Your task to perform on an android device: search for starred emails in the gmail app Image 0: 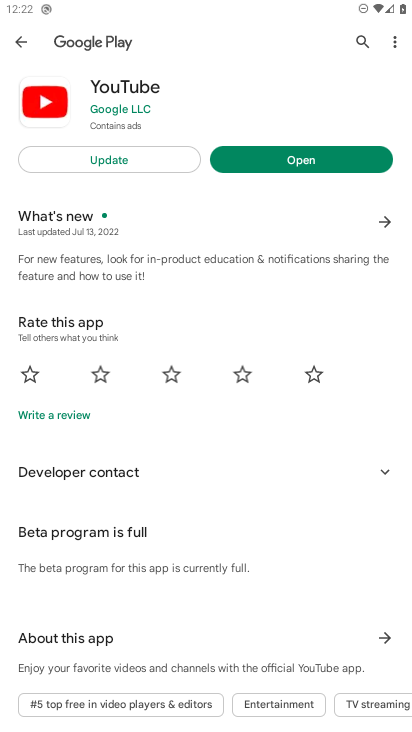
Step 0: press home button
Your task to perform on an android device: search for starred emails in the gmail app Image 1: 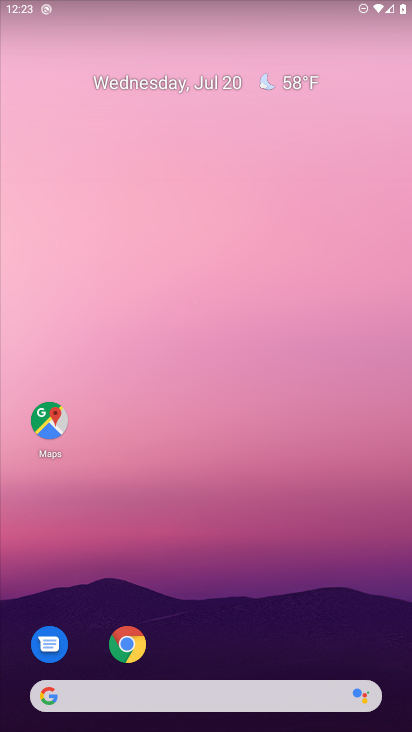
Step 1: drag from (54, 632) to (187, 194)
Your task to perform on an android device: search for starred emails in the gmail app Image 2: 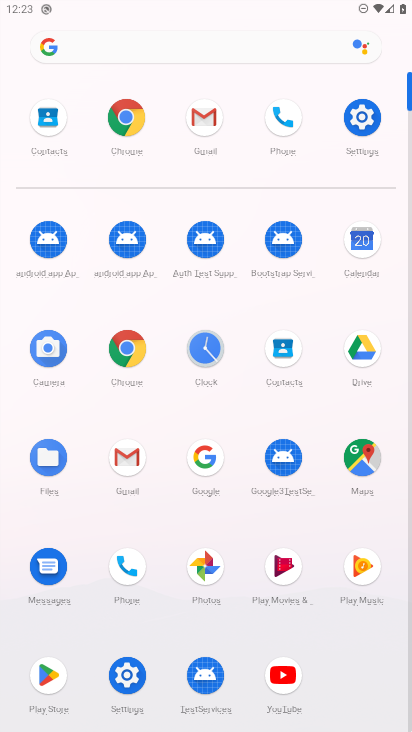
Step 2: click (128, 470)
Your task to perform on an android device: search for starred emails in the gmail app Image 3: 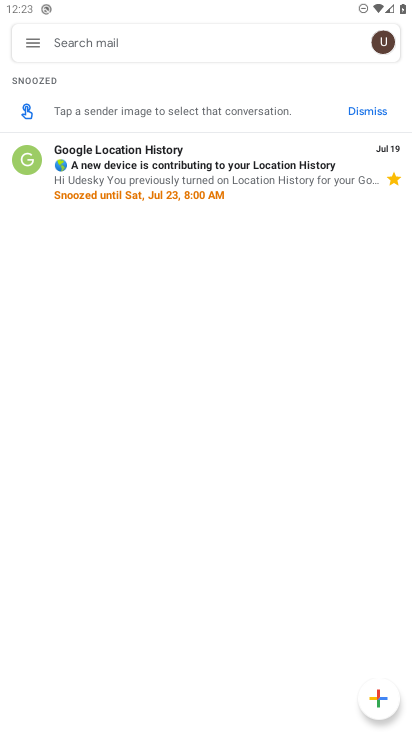
Step 3: click (26, 56)
Your task to perform on an android device: search for starred emails in the gmail app Image 4: 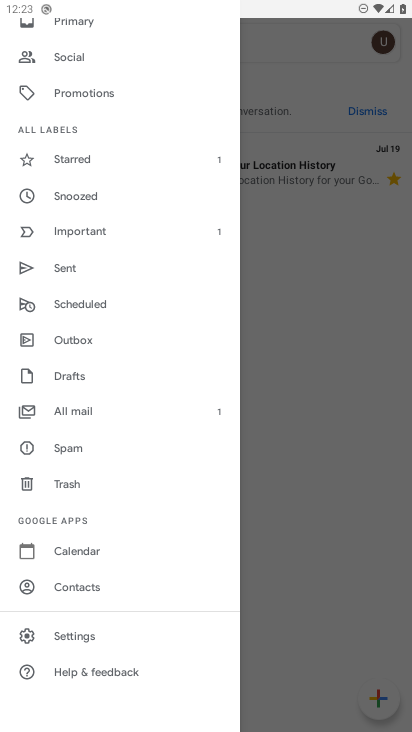
Step 4: click (85, 153)
Your task to perform on an android device: search for starred emails in the gmail app Image 5: 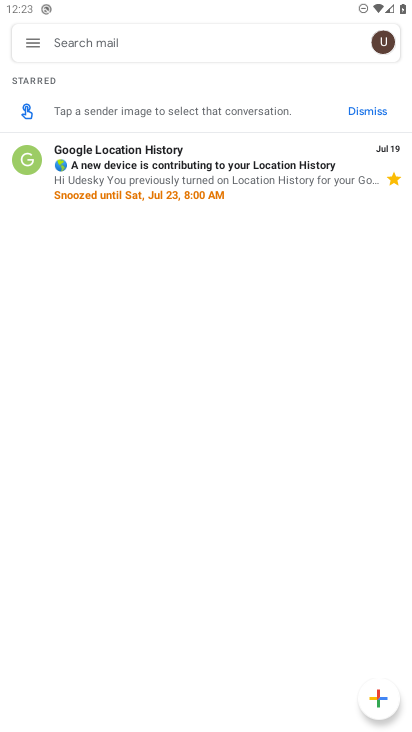
Step 5: task complete